Your task to perform on an android device: Go to Yahoo.com Image 0: 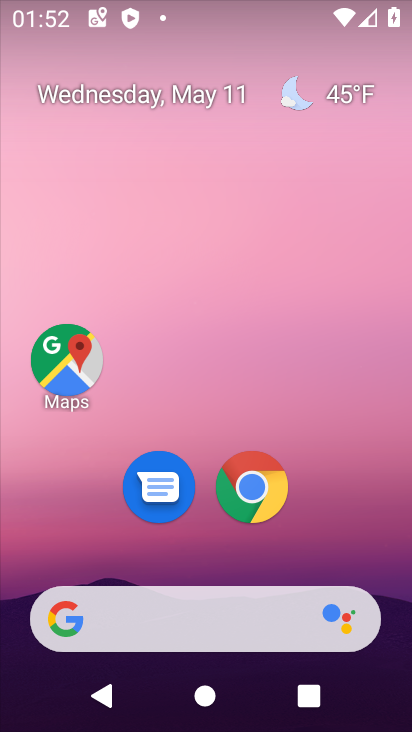
Step 0: click (267, 508)
Your task to perform on an android device: Go to Yahoo.com Image 1: 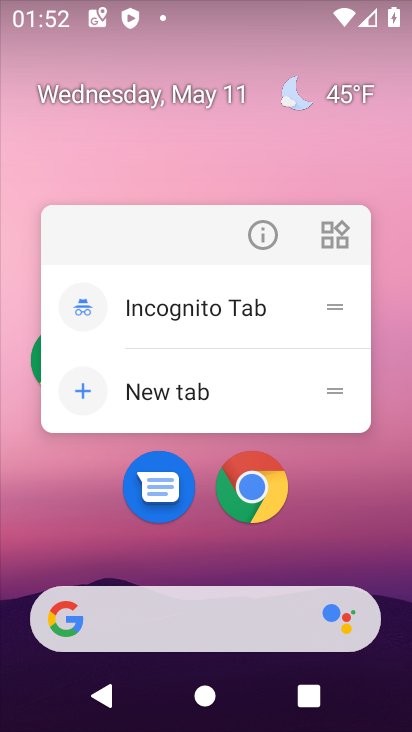
Step 1: click (267, 502)
Your task to perform on an android device: Go to Yahoo.com Image 2: 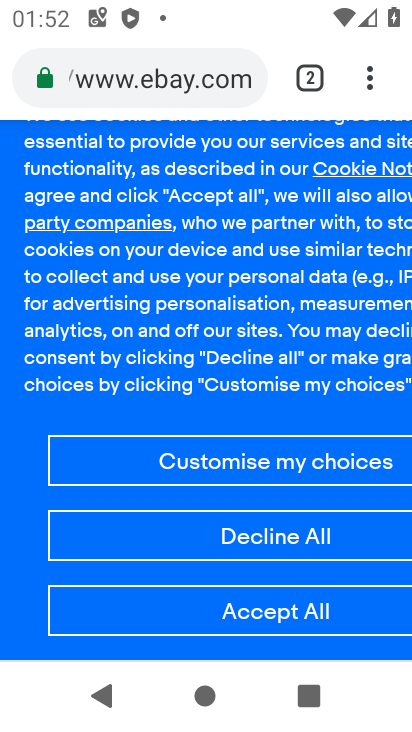
Step 2: drag from (373, 97) to (273, 245)
Your task to perform on an android device: Go to Yahoo.com Image 3: 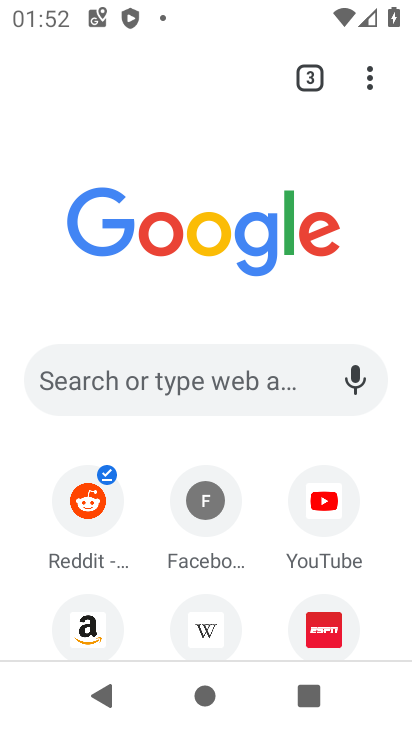
Step 3: click (216, 391)
Your task to perform on an android device: Go to Yahoo.com Image 4: 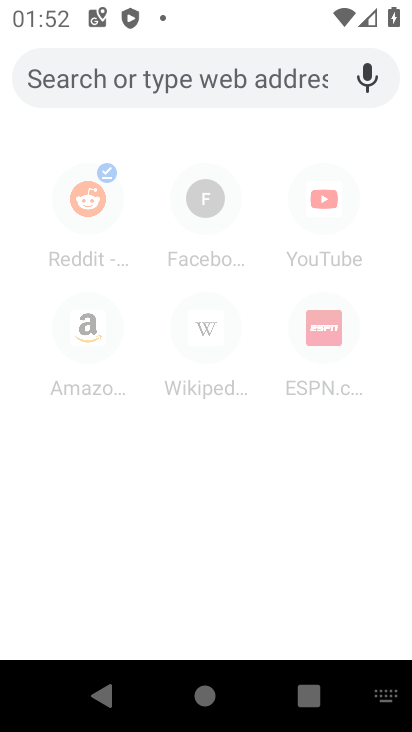
Step 4: type "Yahoo.com"
Your task to perform on an android device: Go to Yahoo.com Image 5: 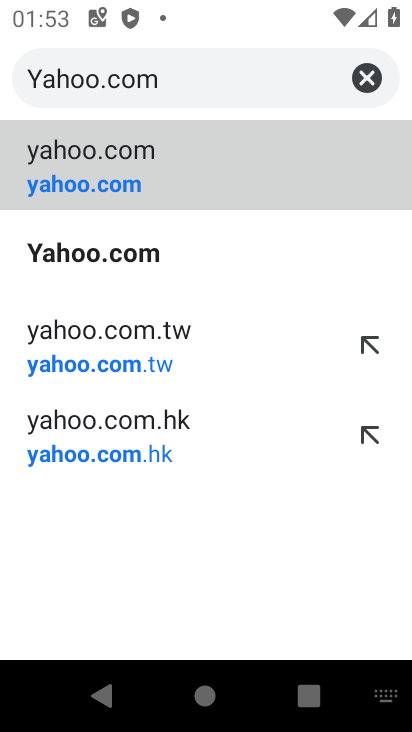
Step 5: click (297, 218)
Your task to perform on an android device: Go to Yahoo.com Image 6: 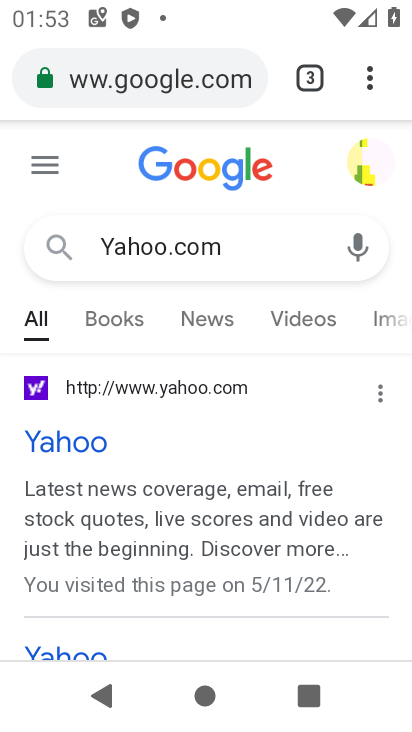
Step 6: click (109, 439)
Your task to perform on an android device: Go to Yahoo.com Image 7: 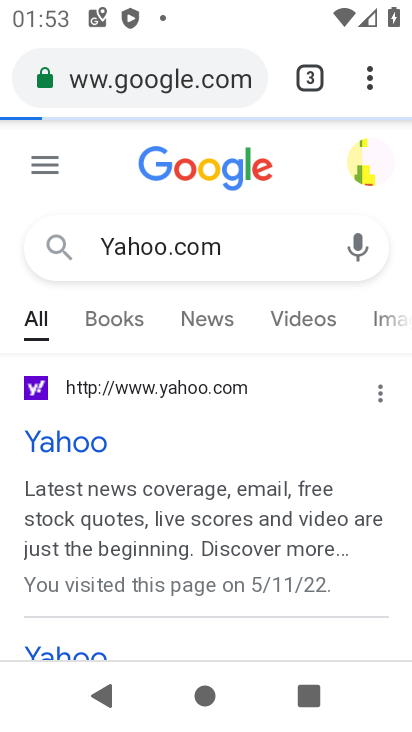
Step 7: click (97, 462)
Your task to perform on an android device: Go to Yahoo.com Image 8: 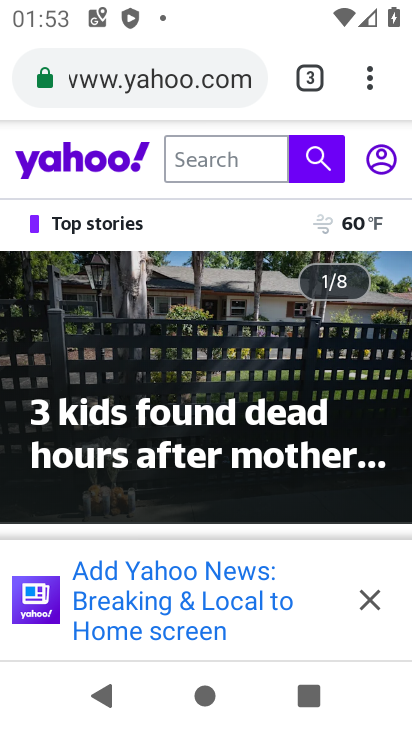
Step 8: task complete